Your task to perform on an android device: open chrome privacy settings Image 0: 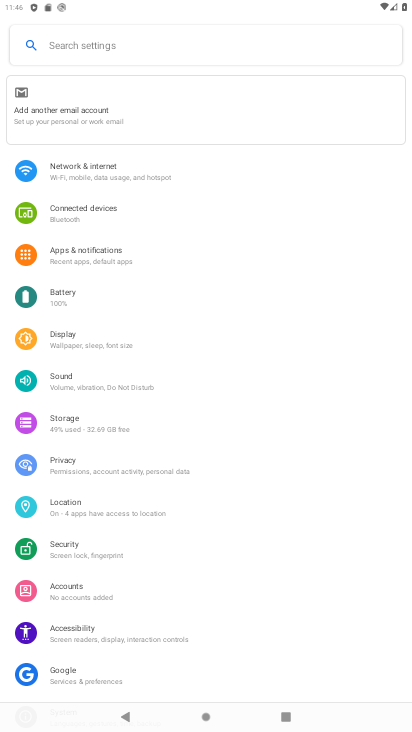
Step 0: press home button
Your task to perform on an android device: open chrome privacy settings Image 1: 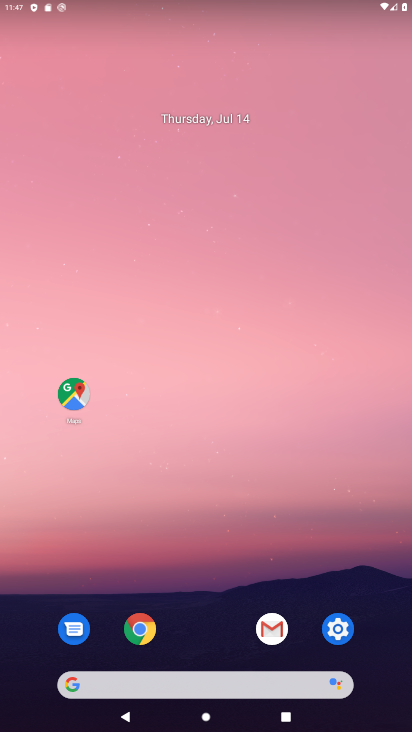
Step 1: click (144, 622)
Your task to perform on an android device: open chrome privacy settings Image 2: 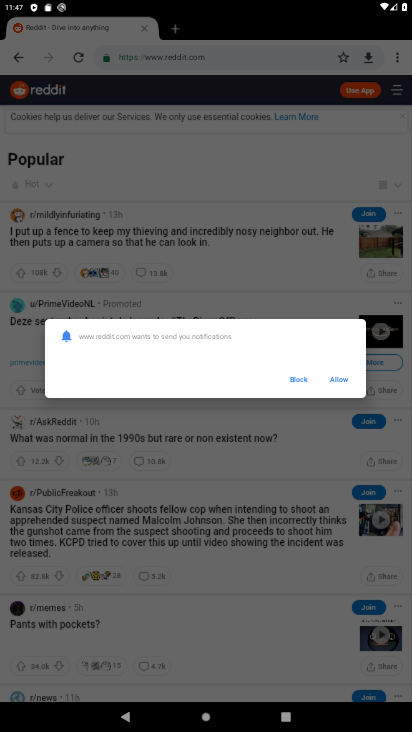
Step 2: click (290, 378)
Your task to perform on an android device: open chrome privacy settings Image 3: 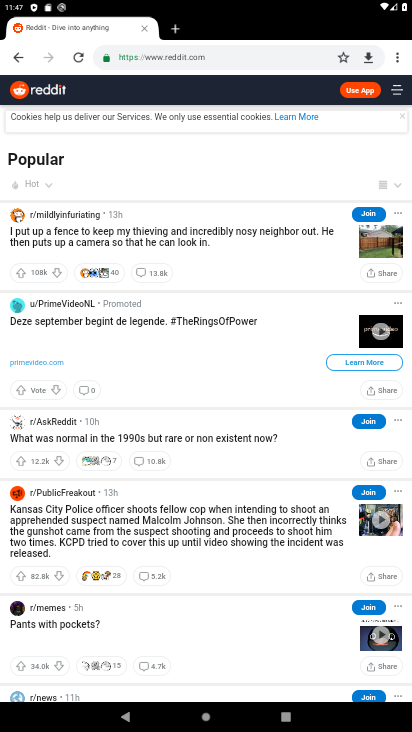
Step 3: click (394, 64)
Your task to perform on an android device: open chrome privacy settings Image 4: 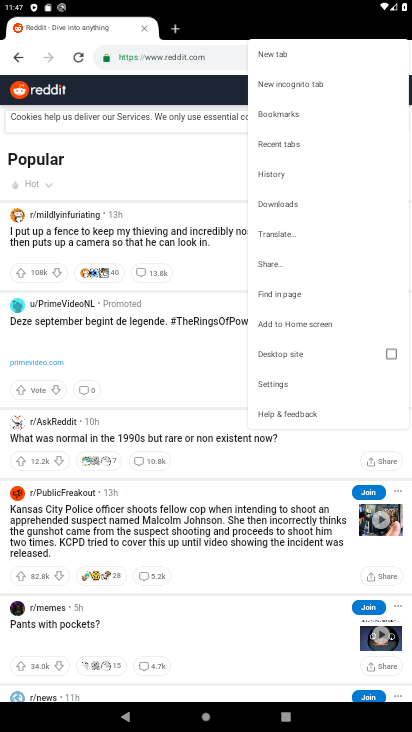
Step 4: click (270, 384)
Your task to perform on an android device: open chrome privacy settings Image 5: 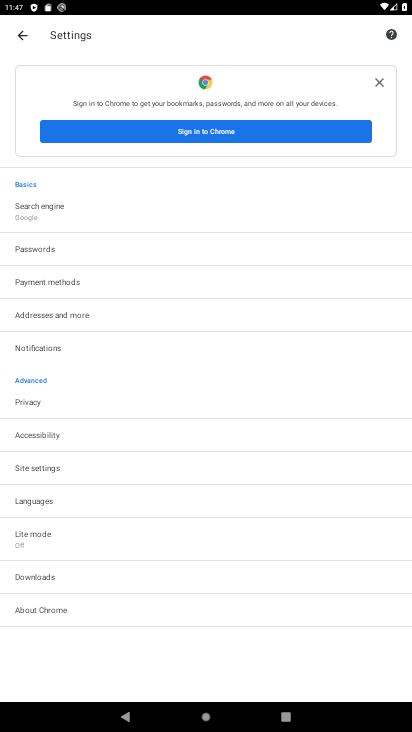
Step 5: click (45, 405)
Your task to perform on an android device: open chrome privacy settings Image 6: 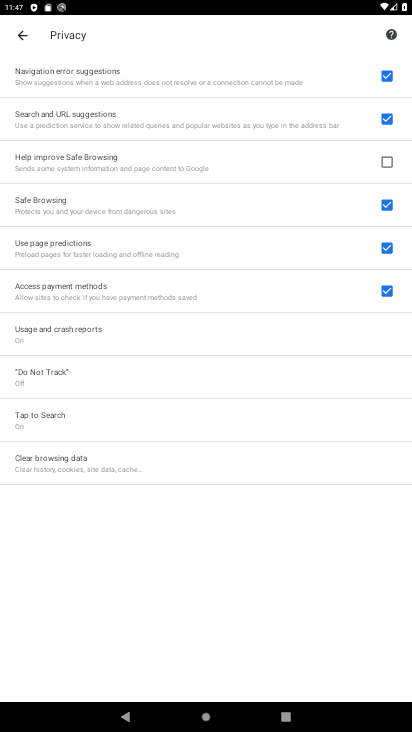
Step 6: task complete